Your task to perform on an android device: turn on javascript in the chrome app Image 0: 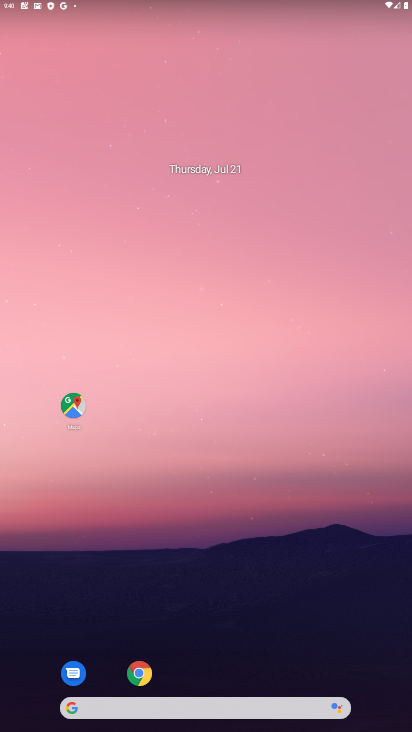
Step 0: click (129, 681)
Your task to perform on an android device: turn on javascript in the chrome app Image 1: 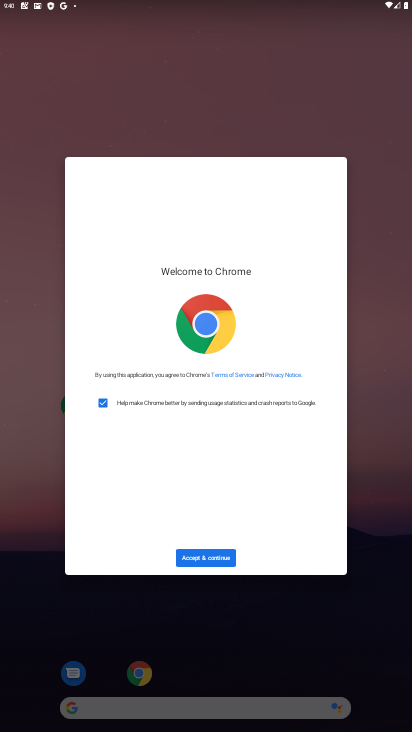
Step 1: click (224, 556)
Your task to perform on an android device: turn on javascript in the chrome app Image 2: 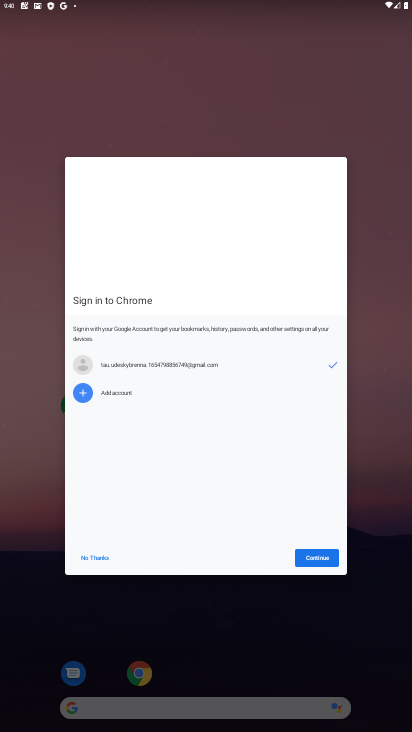
Step 2: click (316, 560)
Your task to perform on an android device: turn on javascript in the chrome app Image 3: 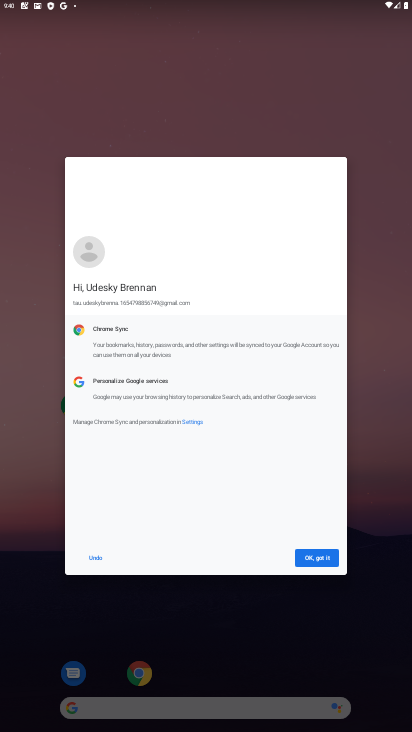
Step 3: click (310, 558)
Your task to perform on an android device: turn on javascript in the chrome app Image 4: 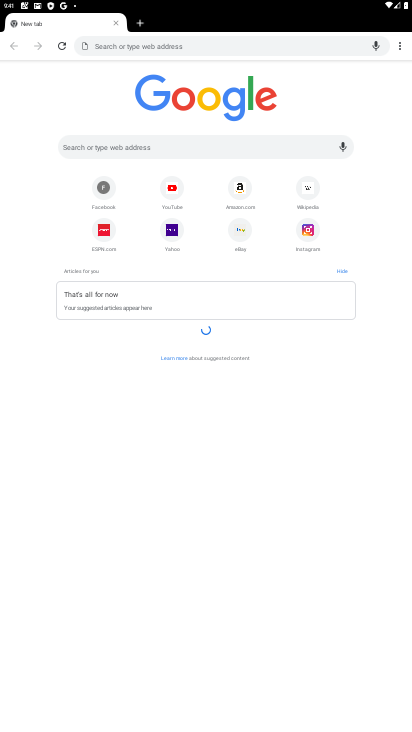
Step 4: click (397, 44)
Your task to perform on an android device: turn on javascript in the chrome app Image 5: 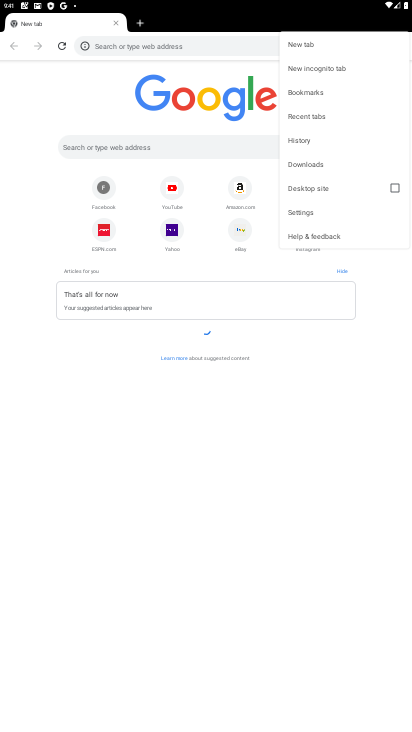
Step 5: click (310, 213)
Your task to perform on an android device: turn on javascript in the chrome app Image 6: 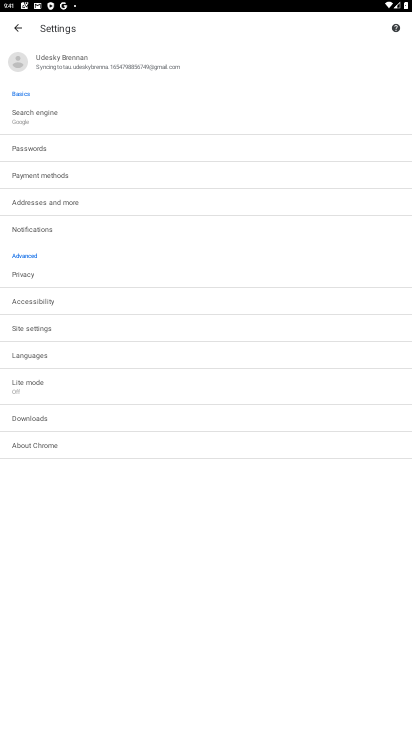
Step 6: click (33, 328)
Your task to perform on an android device: turn on javascript in the chrome app Image 7: 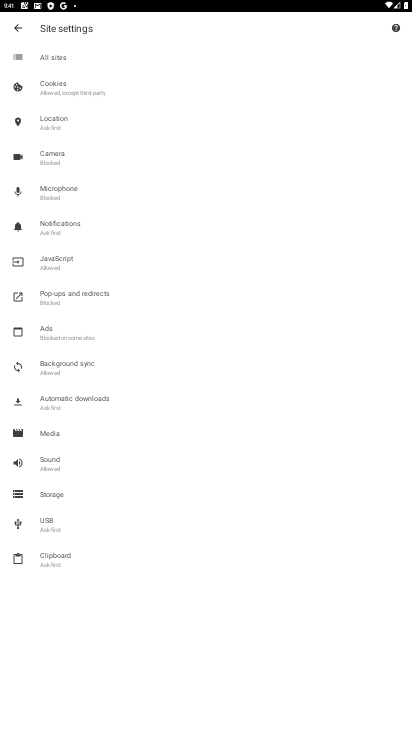
Step 7: click (50, 258)
Your task to perform on an android device: turn on javascript in the chrome app Image 8: 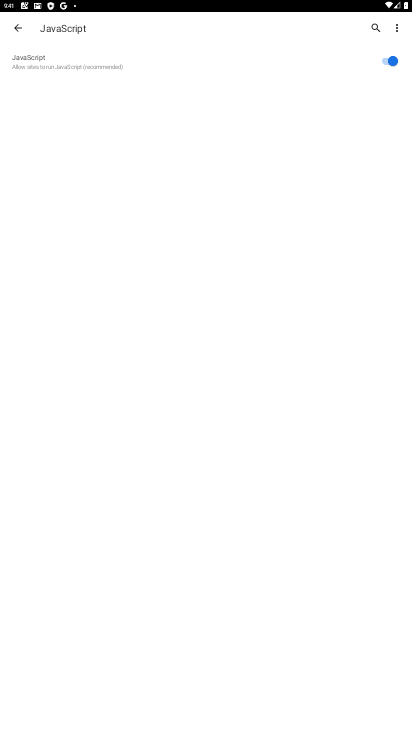
Step 8: task complete